Your task to perform on an android device: open sync settings in chrome Image 0: 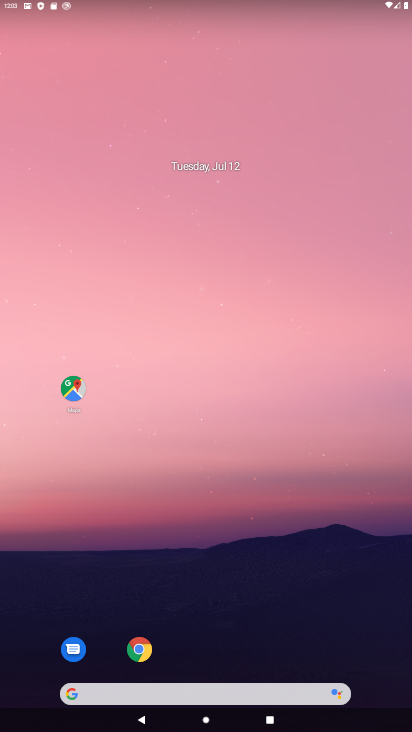
Step 0: click (126, 652)
Your task to perform on an android device: open sync settings in chrome Image 1: 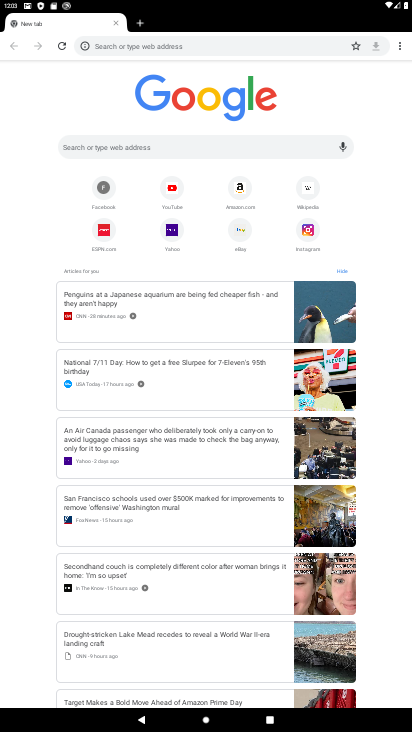
Step 1: click (400, 48)
Your task to perform on an android device: open sync settings in chrome Image 2: 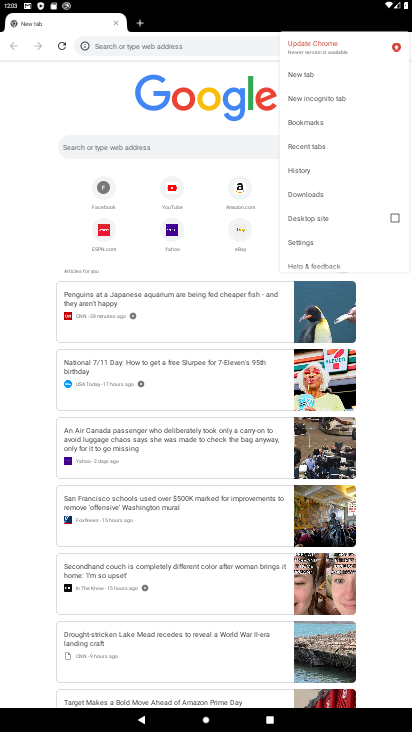
Step 2: click (304, 243)
Your task to perform on an android device: open sync settings in chrome Image 3: 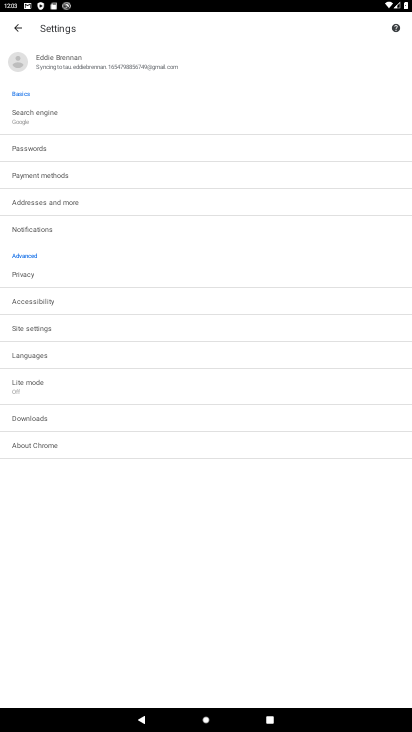
Step 3: click (123, 53)
Your task to perform on an android device: open sync settings in chrome Image 4: 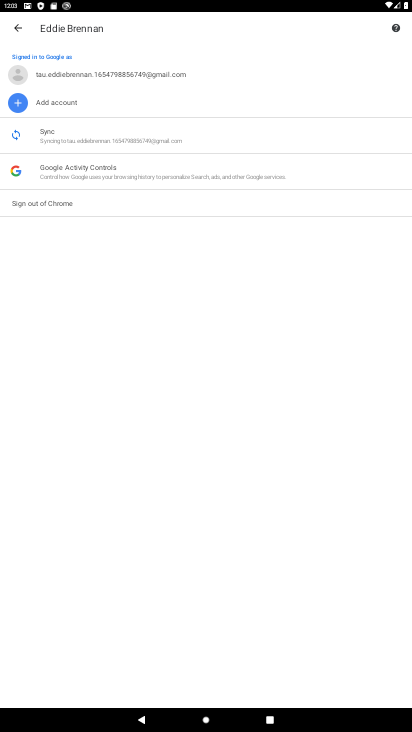
Step 4: click (75, 139)
Your task to perform on an android device: open sync settings in chrome Image 5: 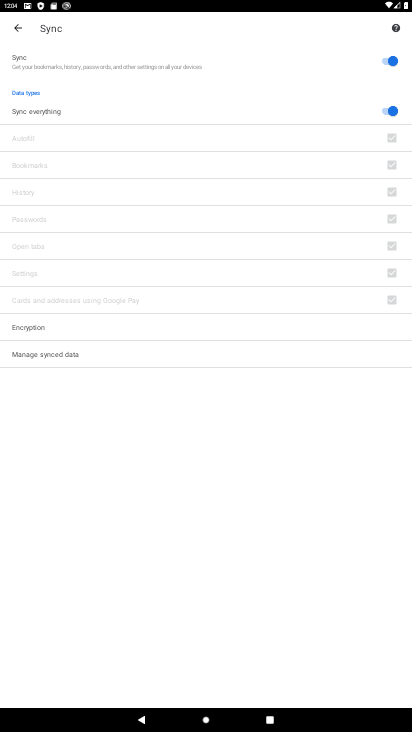
Step 5: task complete